Your task to perform on an android device: When is my next meeting? Image 0: 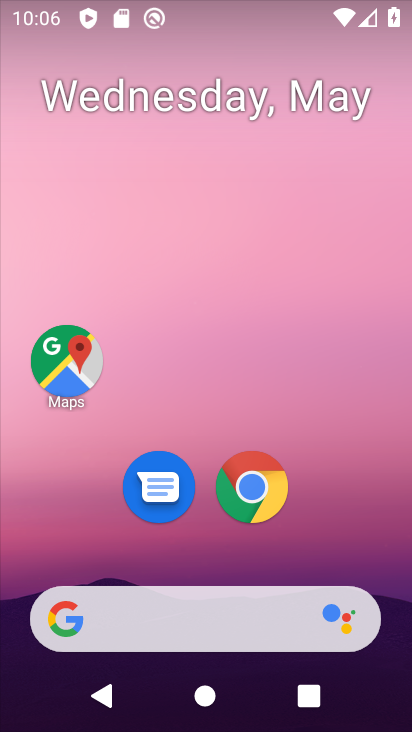
Step 0: drag from (204, 572) to (162, 725)
Your task to perform on an android device: When is my next meeting? Image 1: 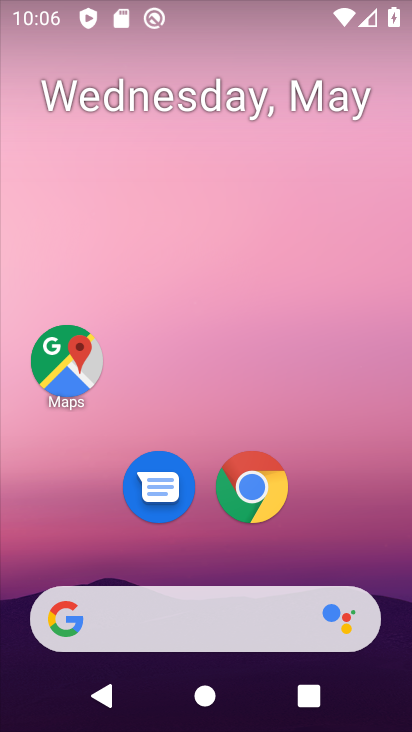
Step 1: drag from (191, 570) to (402, 514)
Your task to perform on an android device: When is my next meeting? Image 2: 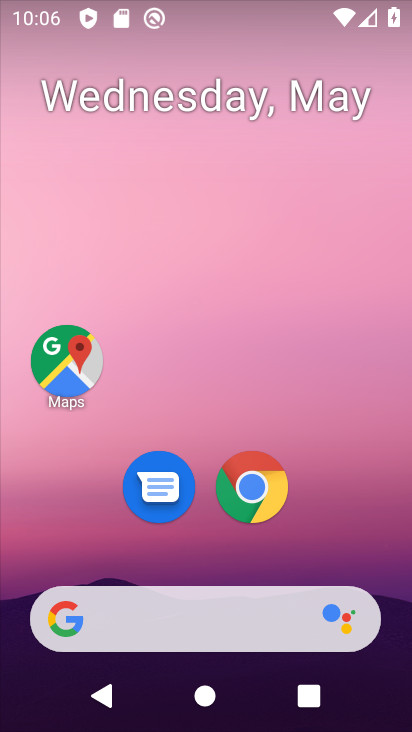
Step 2: drag from (193, 581) to (358, 24)
Your task to perform on an android device: When is my next meeting? Image 3: 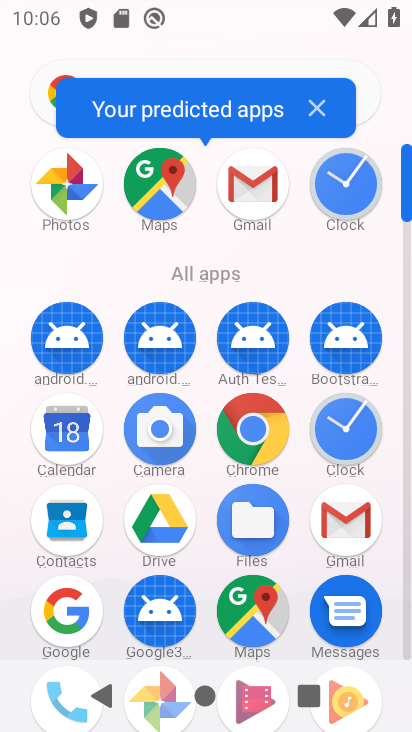
Step 3: click (61, 437)
Your task to perform on an android device: When is my next meeting? Image 4: 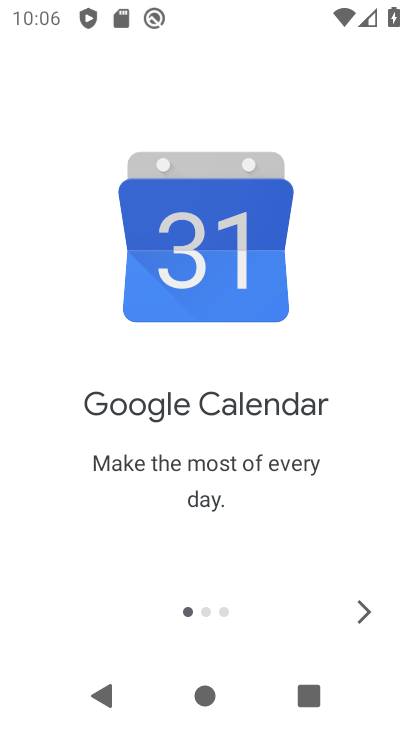
Step 4: click (366, 616)
Your task to perform on an android device: When is my next meeting? Image 5: 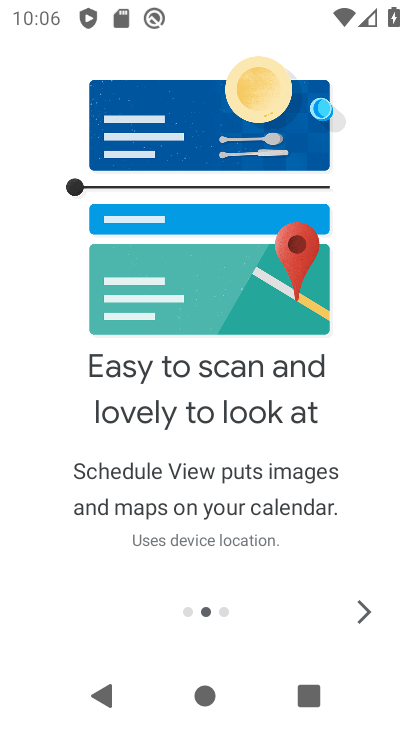
Step 5: click (366, 616)
Your task to perform on an android device: When is my next meeting? Image 6: 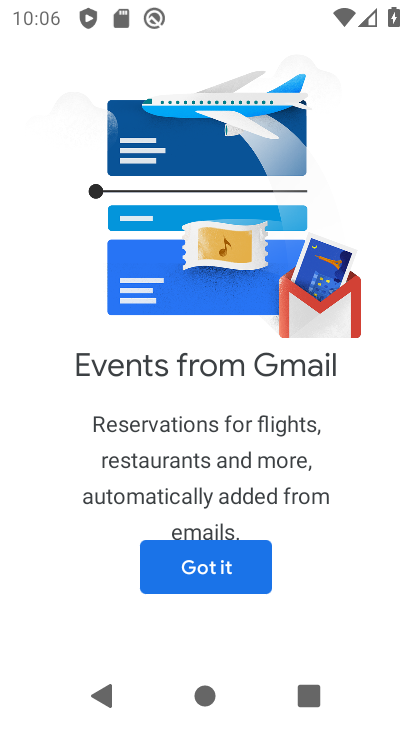
Step 6: click (258, 569)
Your task to perform on an android device: When is my next meeting? Image 7: 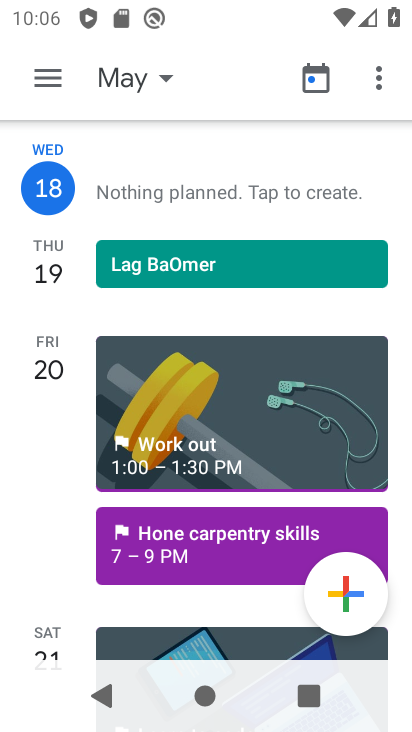
Step 7: task complete